Your task to perform on an android device: Open the phone app and click the voicemail tab. Image 0: 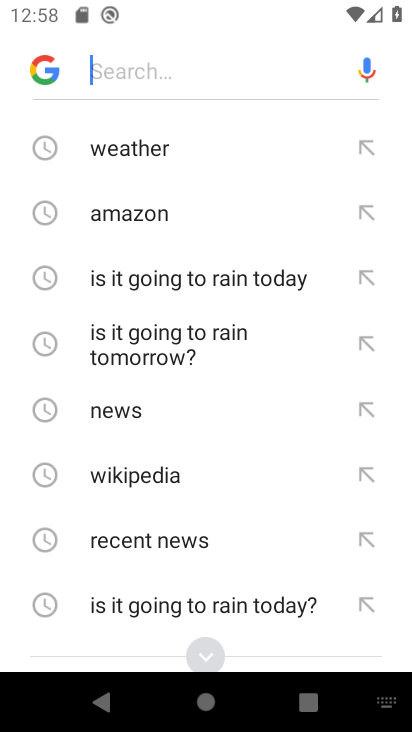
Step 0: press home button
Your task to perform on an android device: Open the phone app and click the voicemail tab. Image 1: 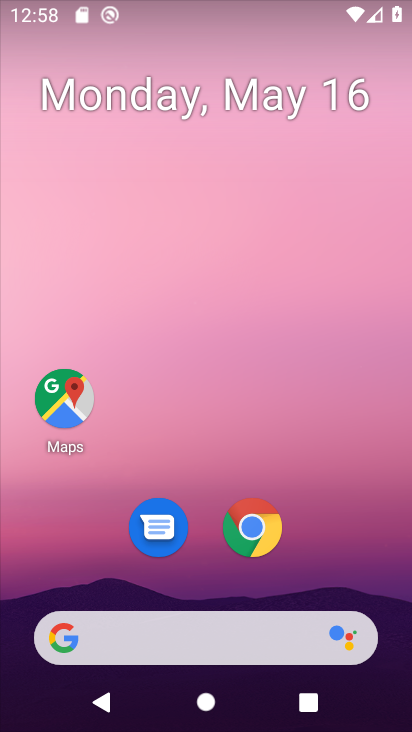
Step 1: drag from (193, 617) to (198, 24)
Your task to perform on an android device: Open the phone app and click the voicemail tab. Image 2: 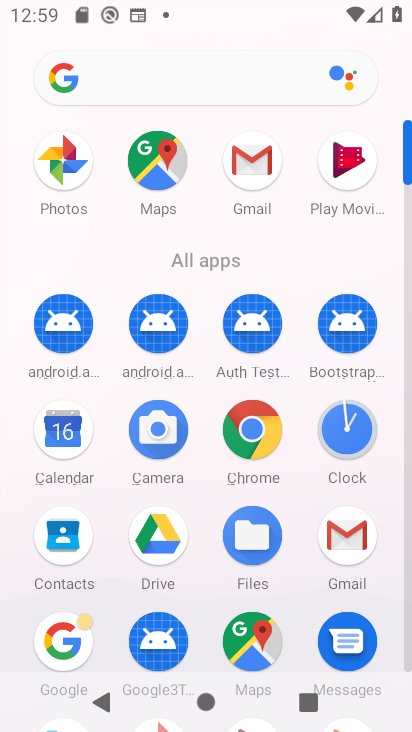
Step 2: drag from (230, 431) to (276, 129)
Your task to perform on an android device: Open the phone app and click the voicemail tab. Image 3: 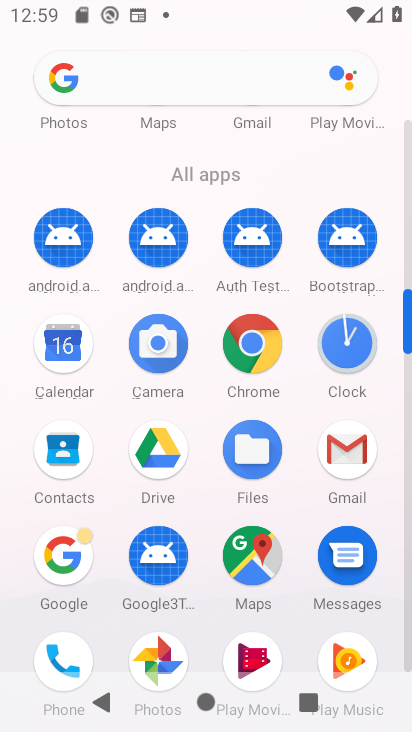
Step 3: click (67, 645)
Your task to perform on an android device: Open the phone app and click the voicemail tab. Image 4: 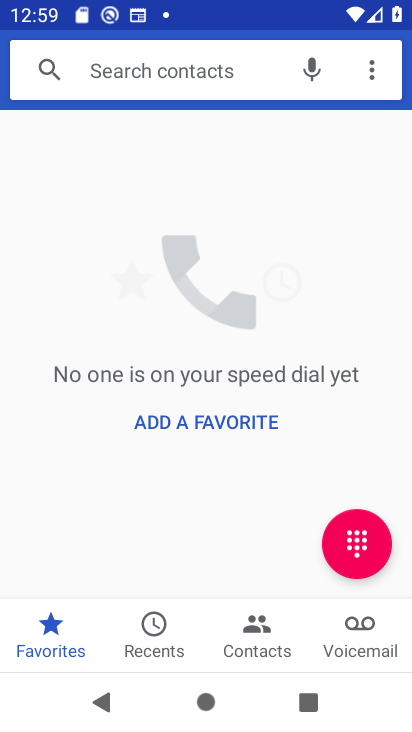
Step 4: click (358, 639)
Your task to perform on an android device: Open the phone app and click the voicemail tab. Image 5: 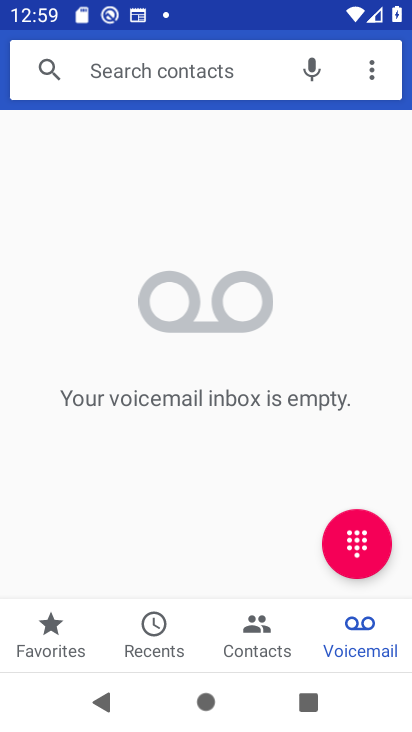
Step 5: task complete